Your task to perform on an android device: What's the weather today? Image 0: 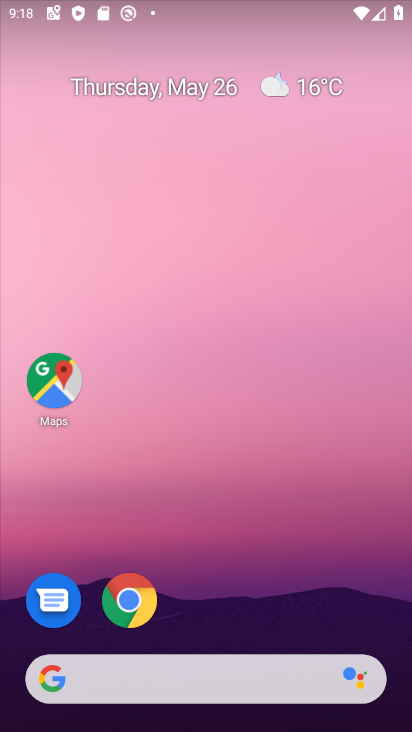
Step 0: click (311, 75)
Your task to perform on an android device: What's the weather today? Image 1: 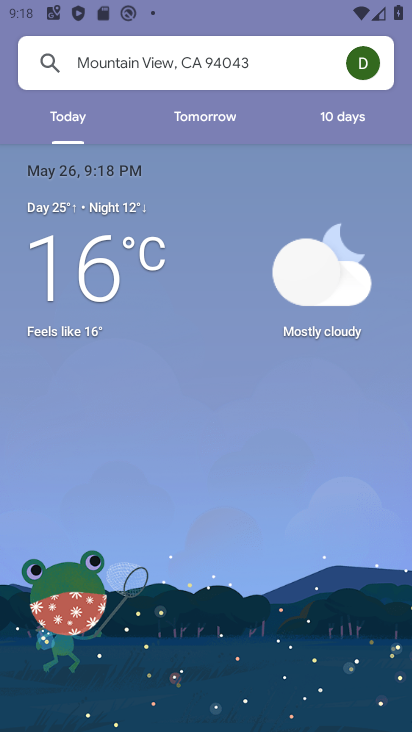
Step 1: task complete